Your task to perform on an android device: Go to network settings Image 0: 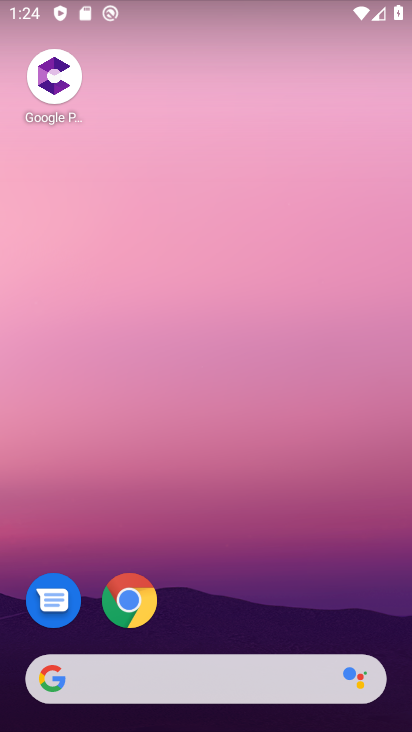
Step 0: drag from (209, 656) to (210, 38)
Your task to perform on an android device: Go to network settings Image 1: 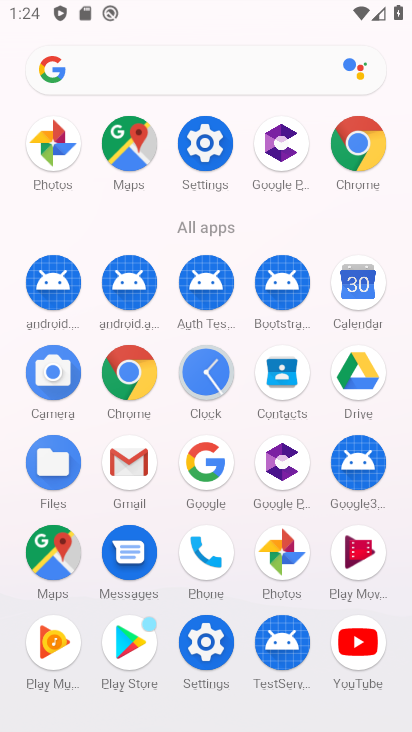
Step 1: click (206, 135)
Your task to perform on an android device: Go to network settings Image 2: 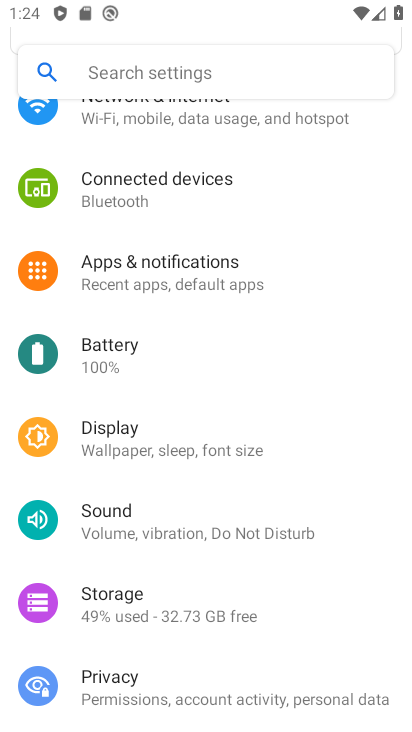
Step 2: drag from (209, 145) to (215, 551)
Your task to perform on an android device: Go to network settings Image 3: 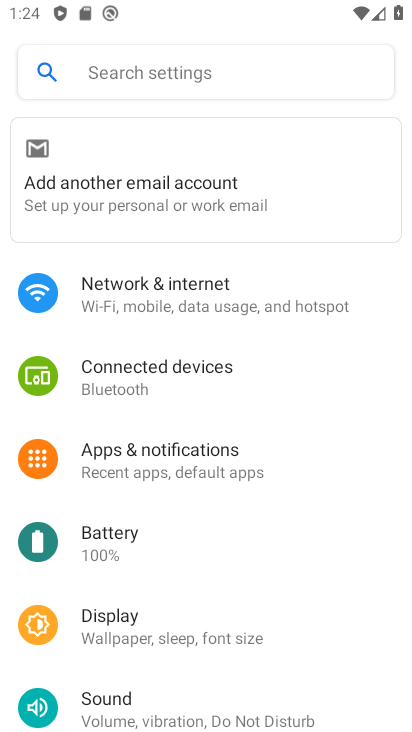
Step 3: click (159, 307)
Your task to perform on an android device: Go to network settings Image 4: 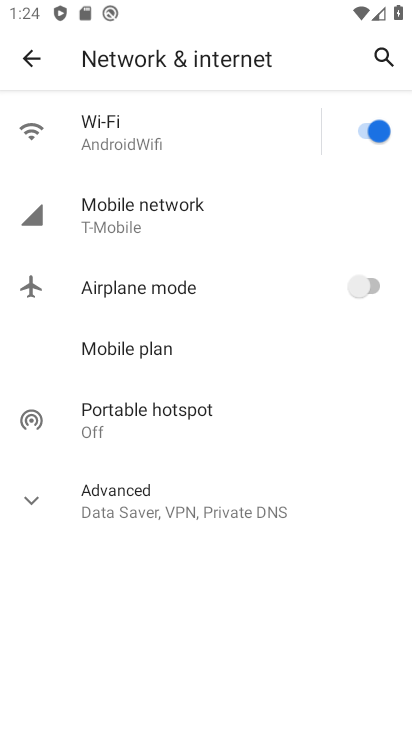
Step 4: click (138, 203)
Your task to perform on an android device: Go to network settings Image 5: 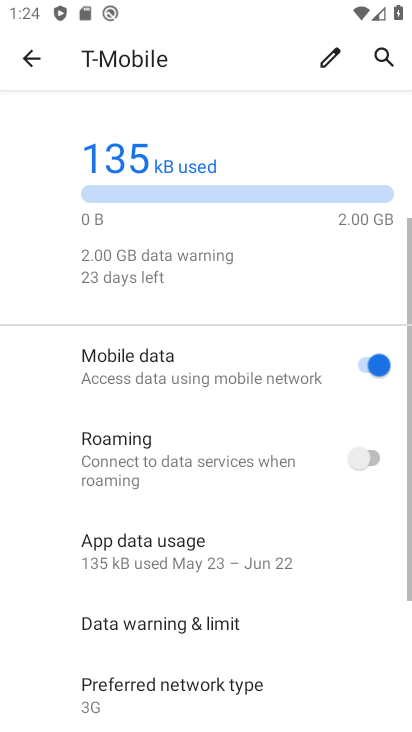
Step 5: task complete